Your task to perform on an android device: Search for the best rated soccer ball on AliExpress Image 0: 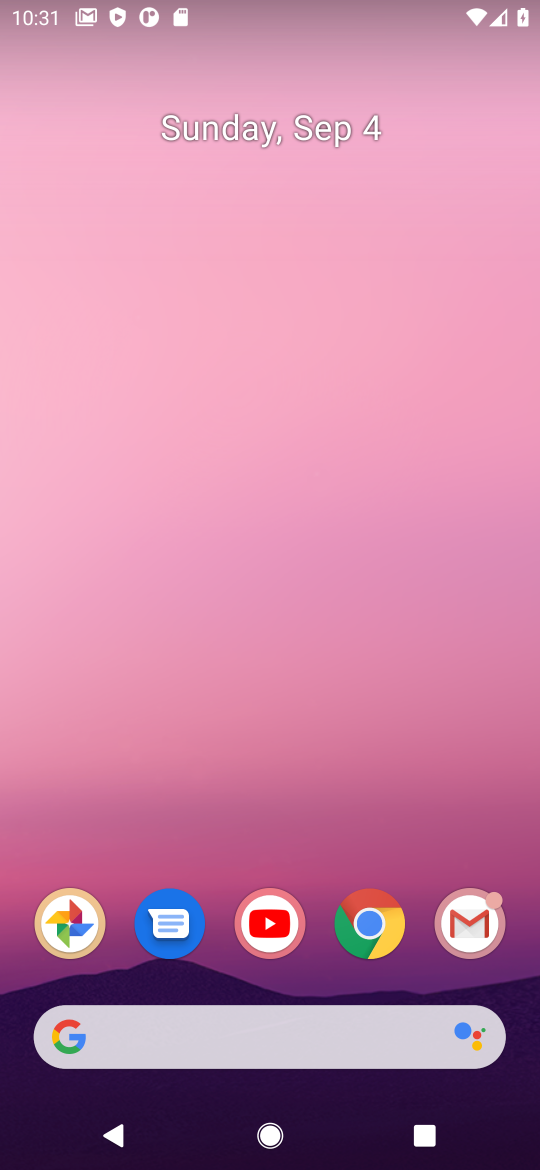
Step 0: click (353, 934)
Your task to perform on an android device: Search for the best rated soccer ball on AliExpress Image 1: 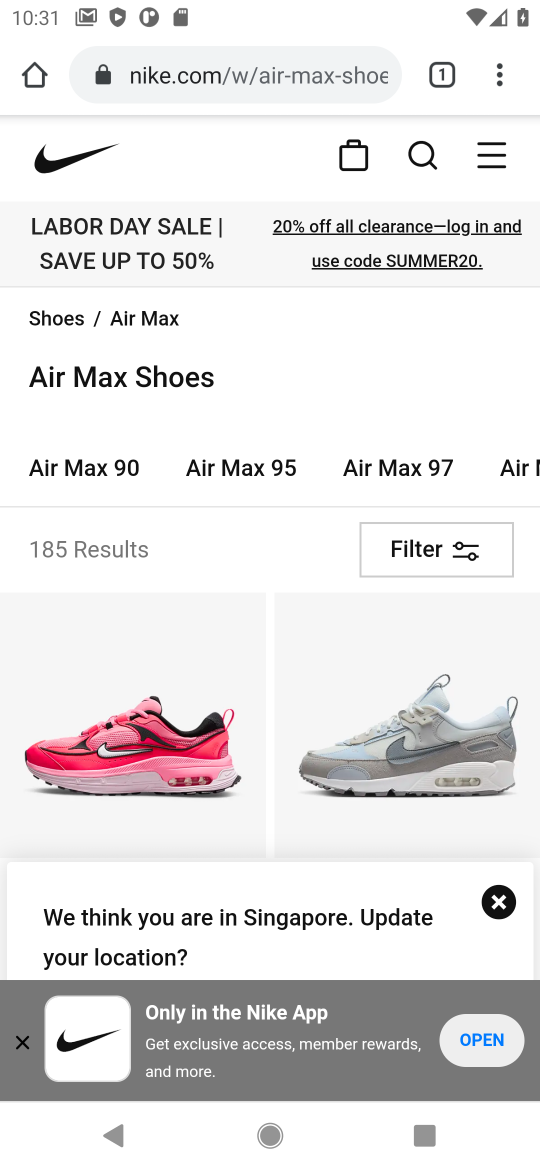
Step 1: click (238, 72)
Your task to perform on an android device: Search for the best rated soccer ball on AliExpress Image 2: 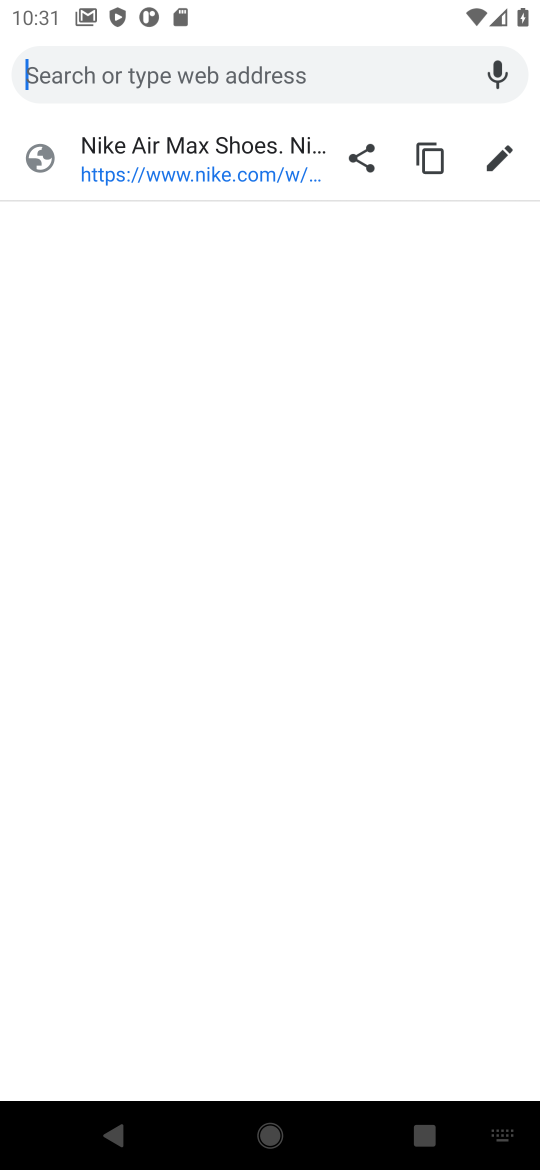
Step 2: type "the best rated soccer ball on AliExpress"
Your task to perform on an android device: Search for the best rated soccer ball on AliExpress Image 3: 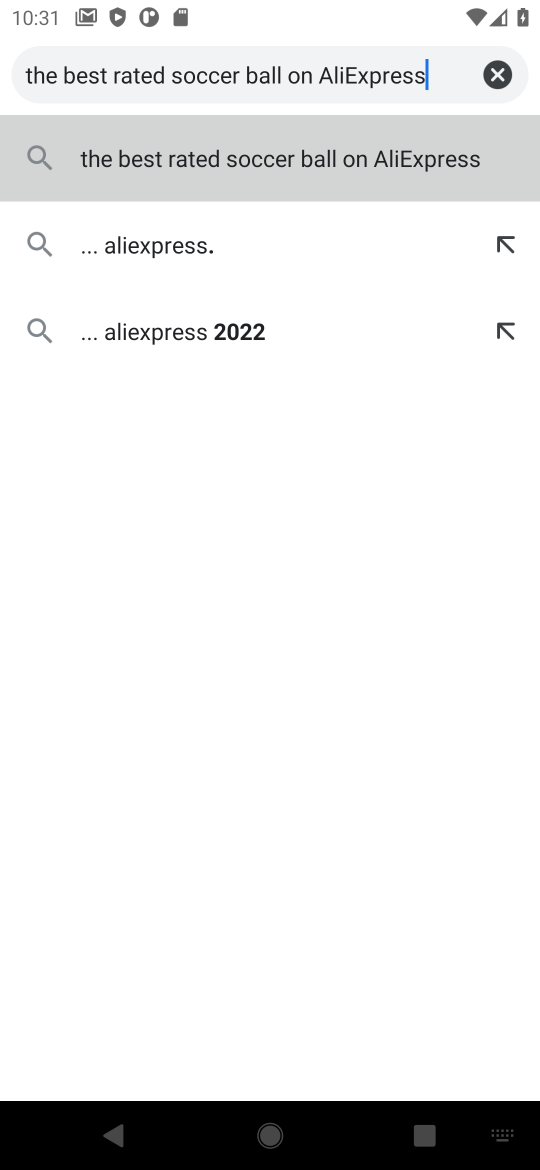
Step 3: click (318, 175)
Your task to perform on an android device: Search for the best rated soccer ball on AliExpress Image 4: 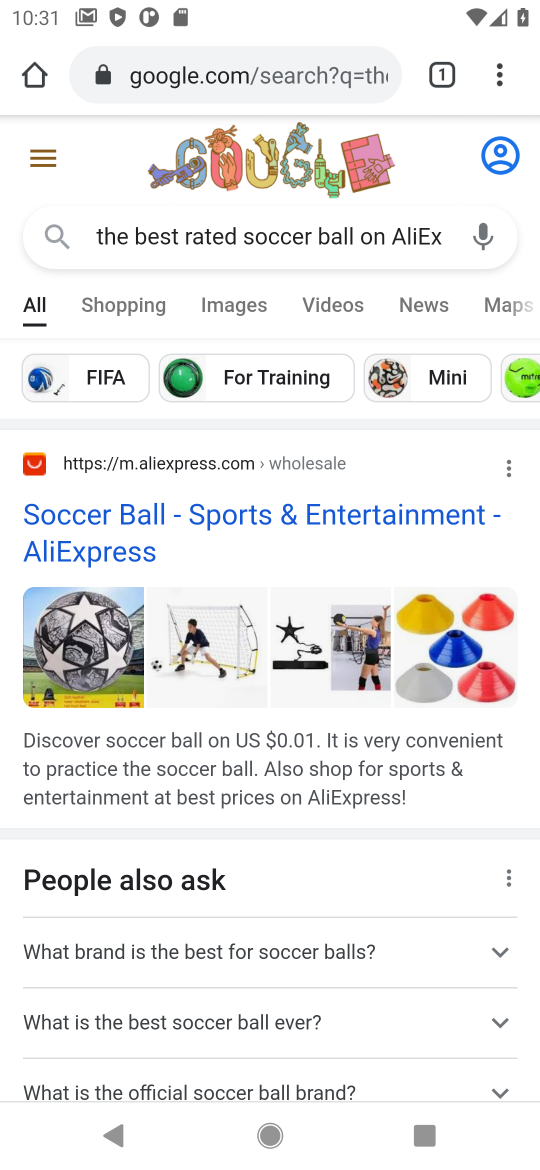
Step 4: task complete